Your task to perform on an android device: Clear the cart on bestbuy.com. Add usb-b to the cart on bestbuy.com, then select checkout. Image 0: 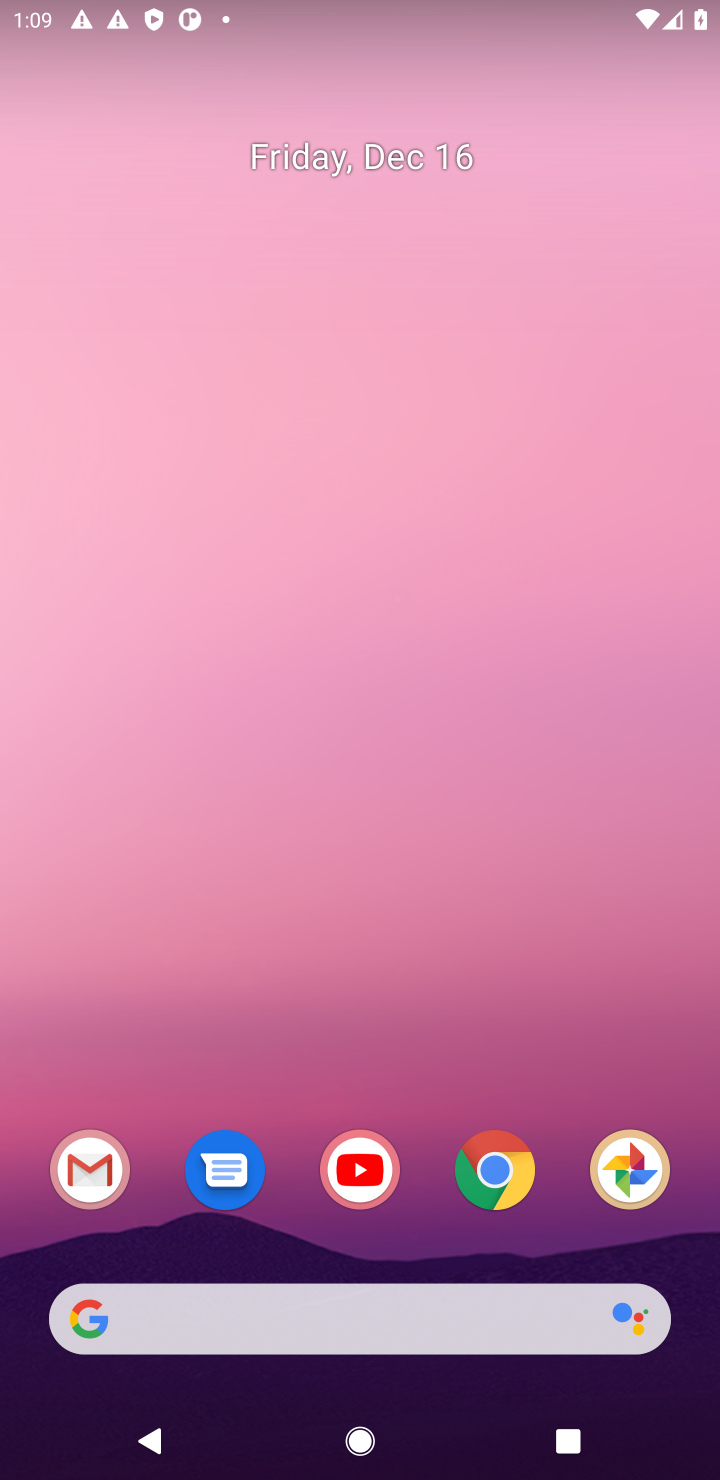
Step 0: click (507, 1175)
Your task to perform on an android device: Clear the cart on bestbuy.com. Add usb-b to the cart on bestbuy.com, then select checkout. Image 1: 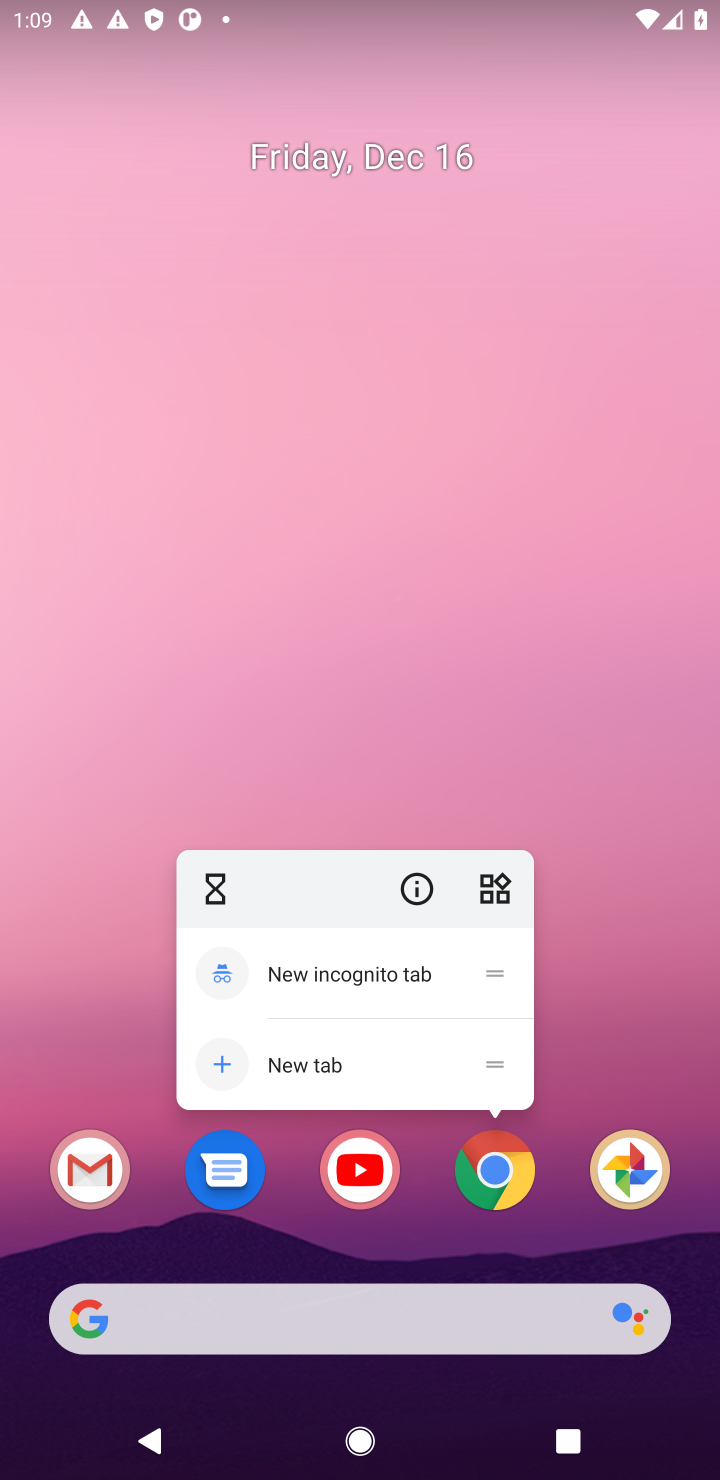
Step 1: click (507, 1175)
Your task to perform on an android device: Clear the cart on bestbuy.com. Add usb-b to the cart on bestbuy.com, then select checkout. Image 2: 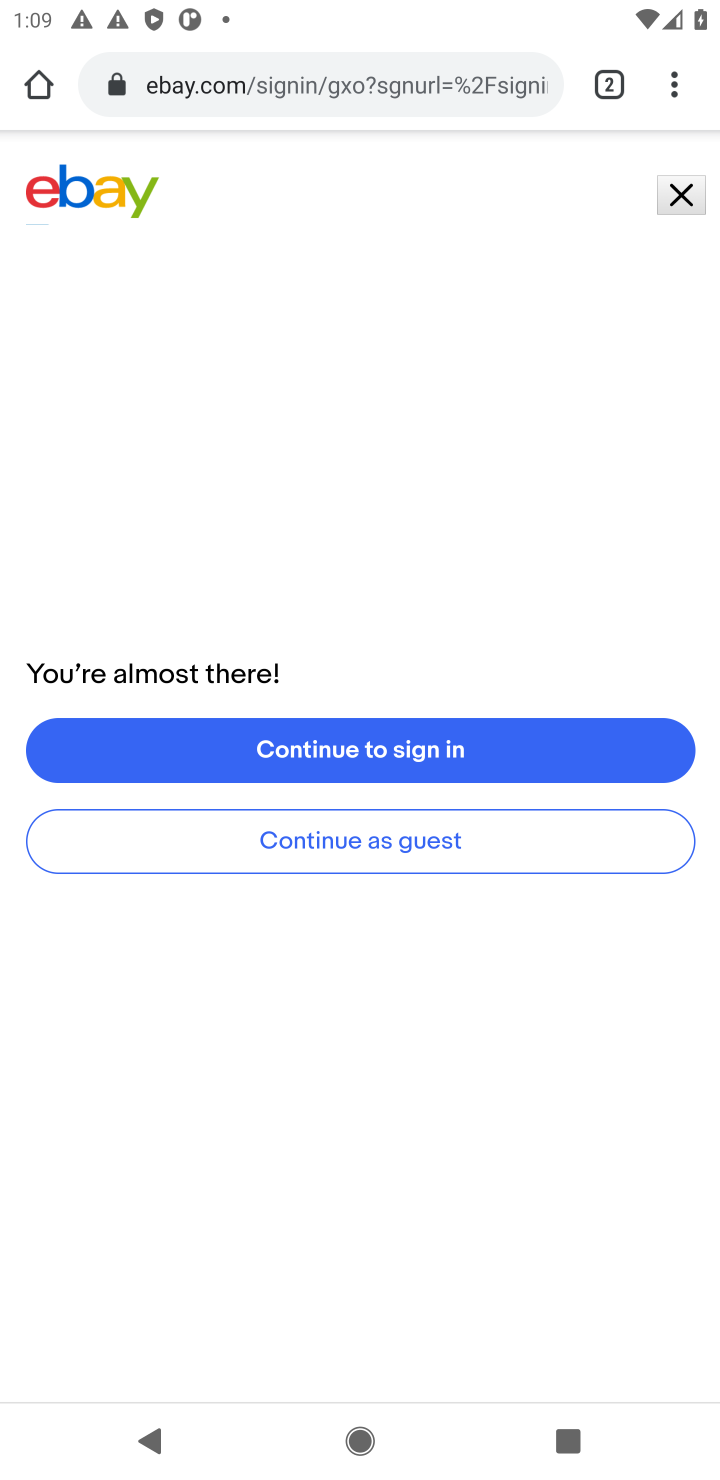
Step 2: click (290, 83)
Your task to perform on an android device: Clear the cart on bestbuy.com. Add usb-b to the cart on bestbuy.com, then select checkout. Image 3: 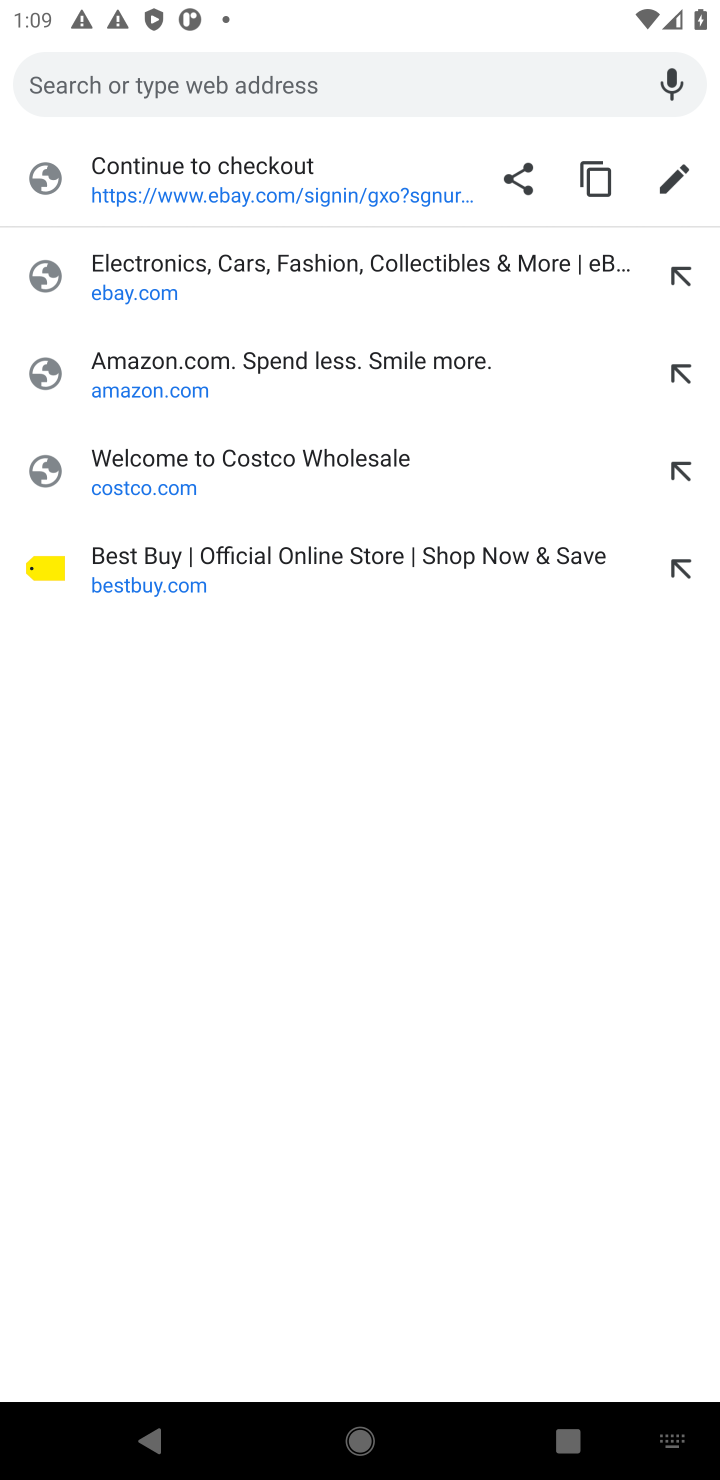
Step 3: click (139, 565)
Your task to perform on an android device: Clear the cart on bestbuy.com. Add usb-b to the cart on bestbuy.com, then select checkout. Image 4: 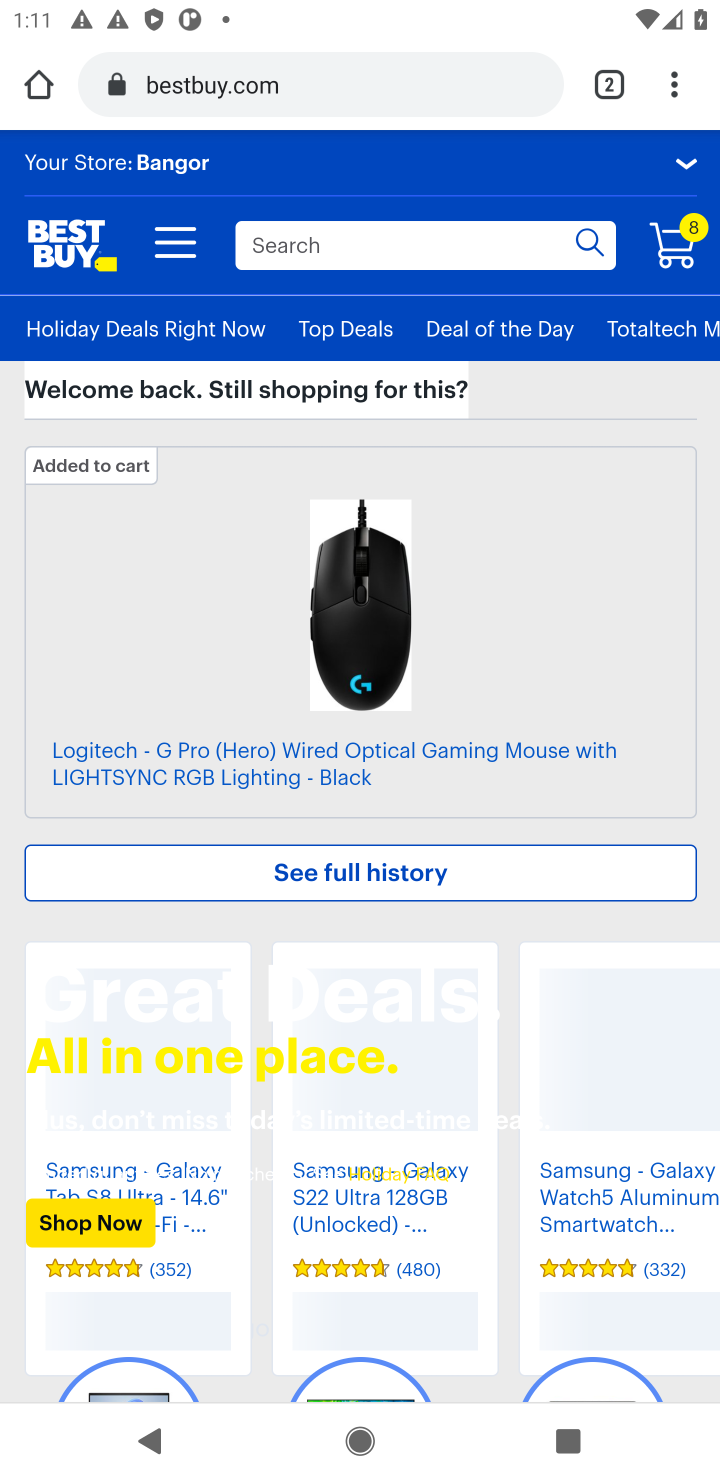
Step 4: click (671, 248)
Your task to perform on an android device: Clear the cart on bestbuy.com. Add usb-b to the cart on bestbuy.com, then select checkout. Image 5: 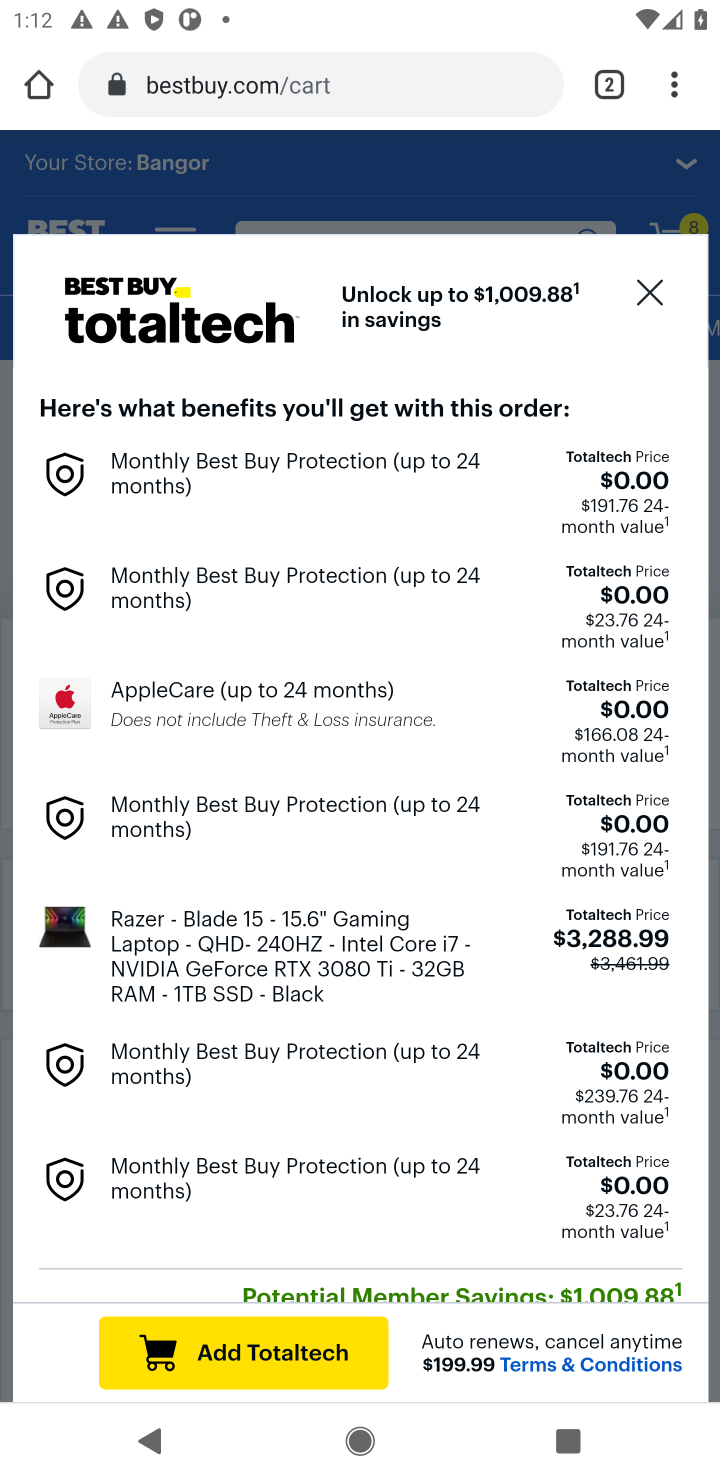
Step 5: click (645, 293)
Your task to perform on an android device: Clear the cart on bestbuy.com. Add usb-b to the cart on bestbuy.com, then select checkout. Image 6: 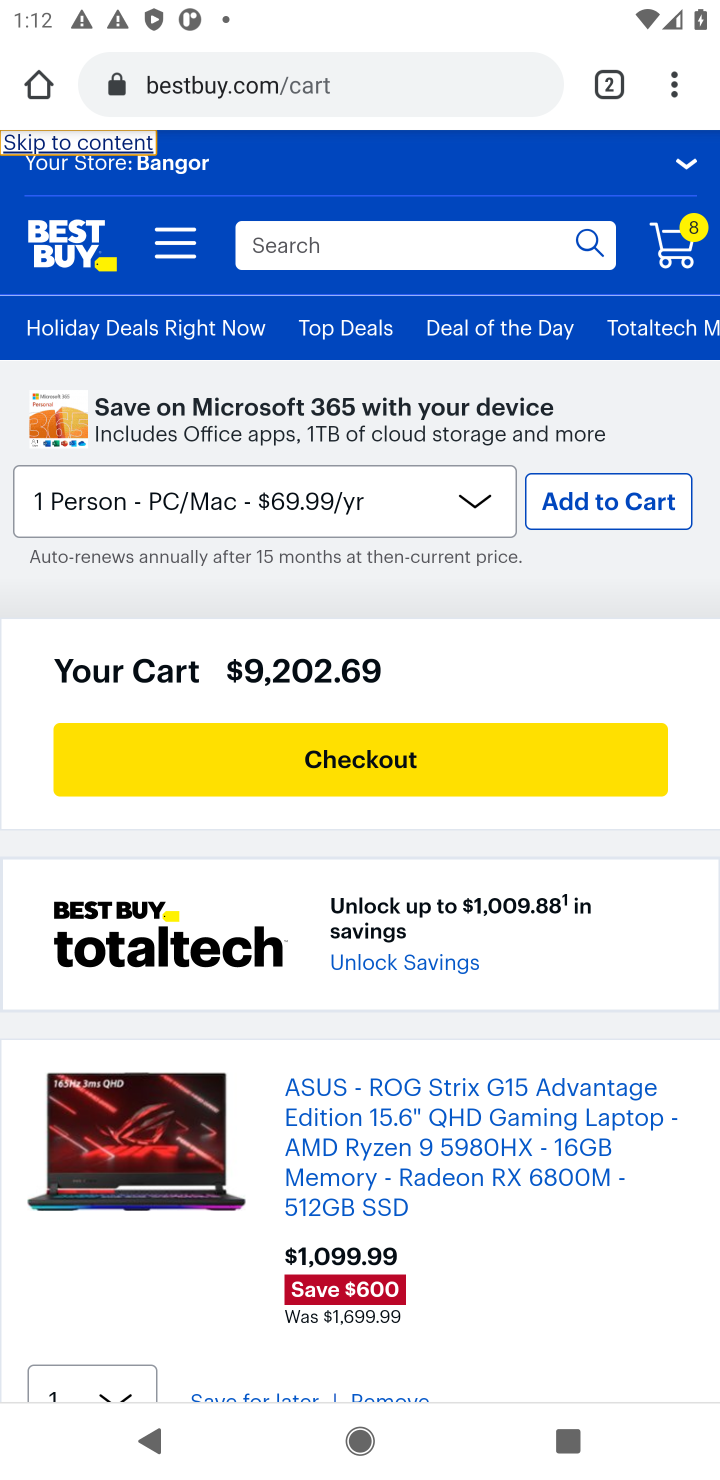
Step 6: drag from (310, 768) to (316, 298)
Your task to perform on an android device: Clear the cart on bestbuy.com. Add usb-b to the cart on bestbuy.com, then select checkout. Image 7: 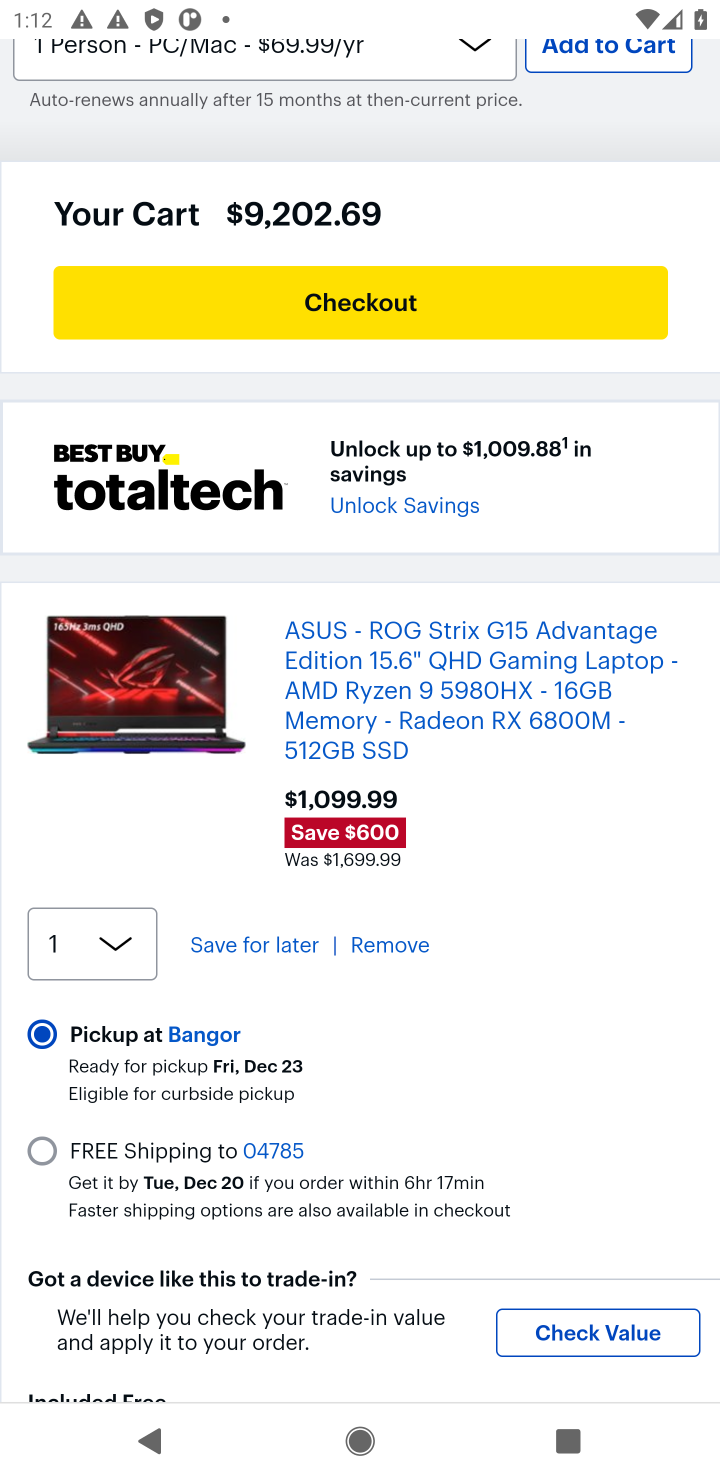
Step 7: click (380, 945)
Your task to perform on an android device: Clear the cart on bestbuy.com. Add usb-b to the cart on bestbuy.com, then select checkout. Image 8: 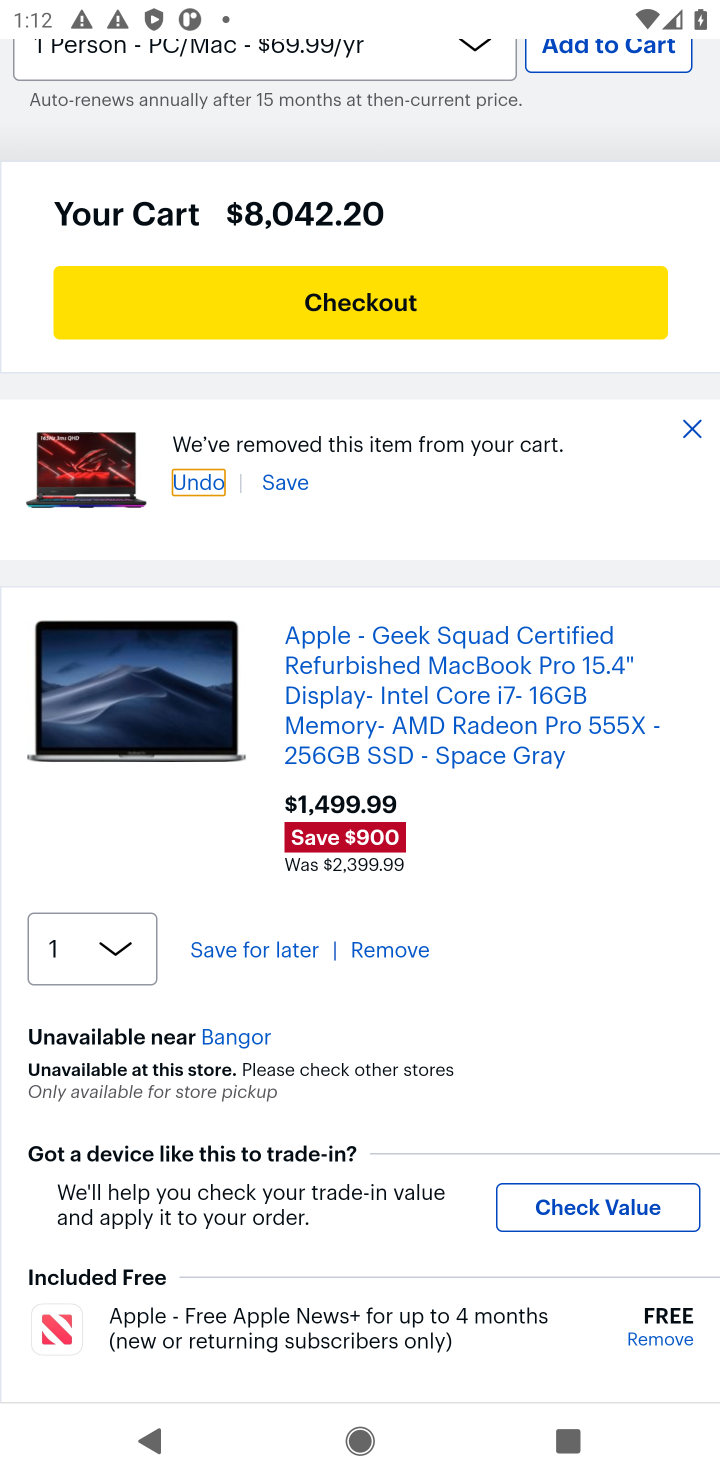
Step 8: click (392, 961)
Your task to perform on an android device: Clear the cart on bestbuy.com. Add usb-b to the cart on bestbuy.com, then select checkout. Image 9: 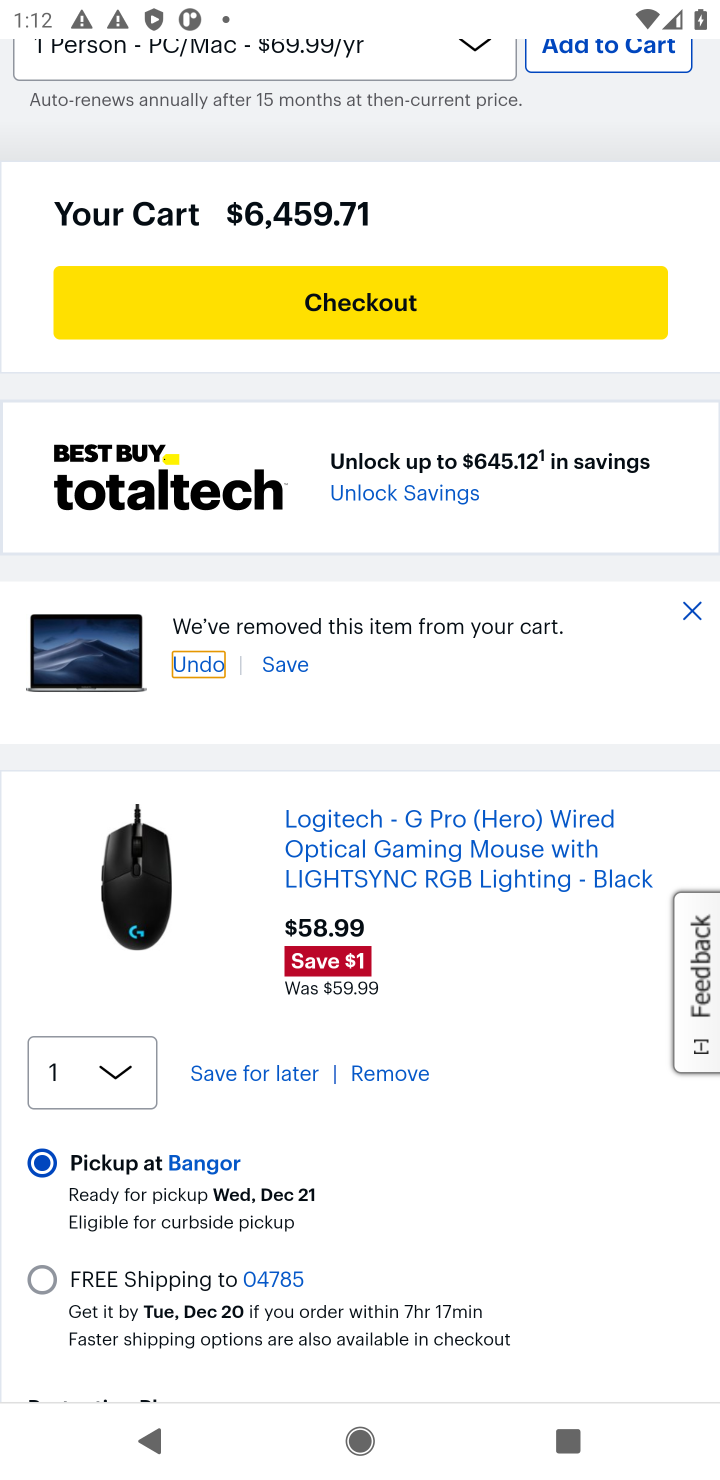
Step 9: click (373, 1063)
Your task to perform on an android device: Clear the cart on bestbuy.com. Add usb-b to the cart on bestbuy.com, then select checkout. Image 10: 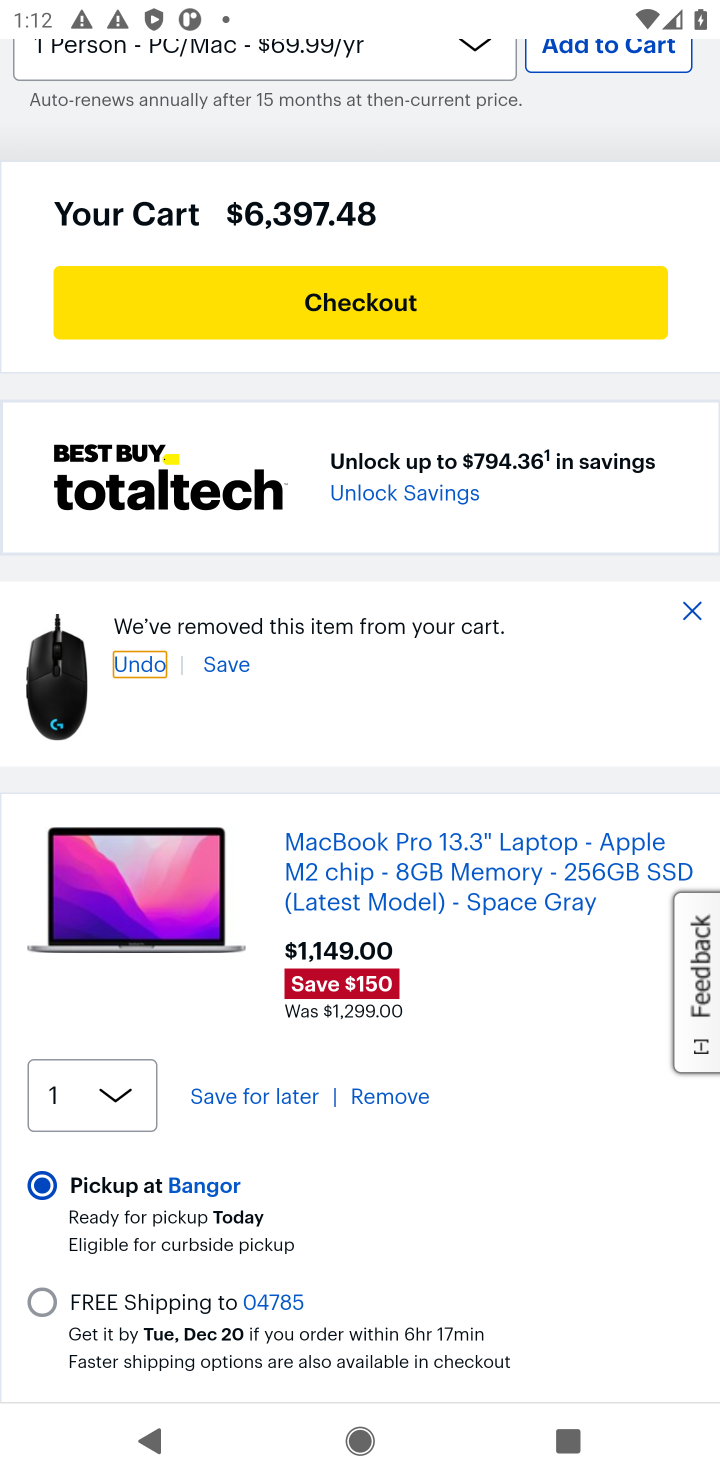
Step 10: click (388, 1082)
Your task to perform on an android device: Clear the cart on bestbuy.com. Add usb-b to the cart on bestbuy.com, then select checkout. Image 11: 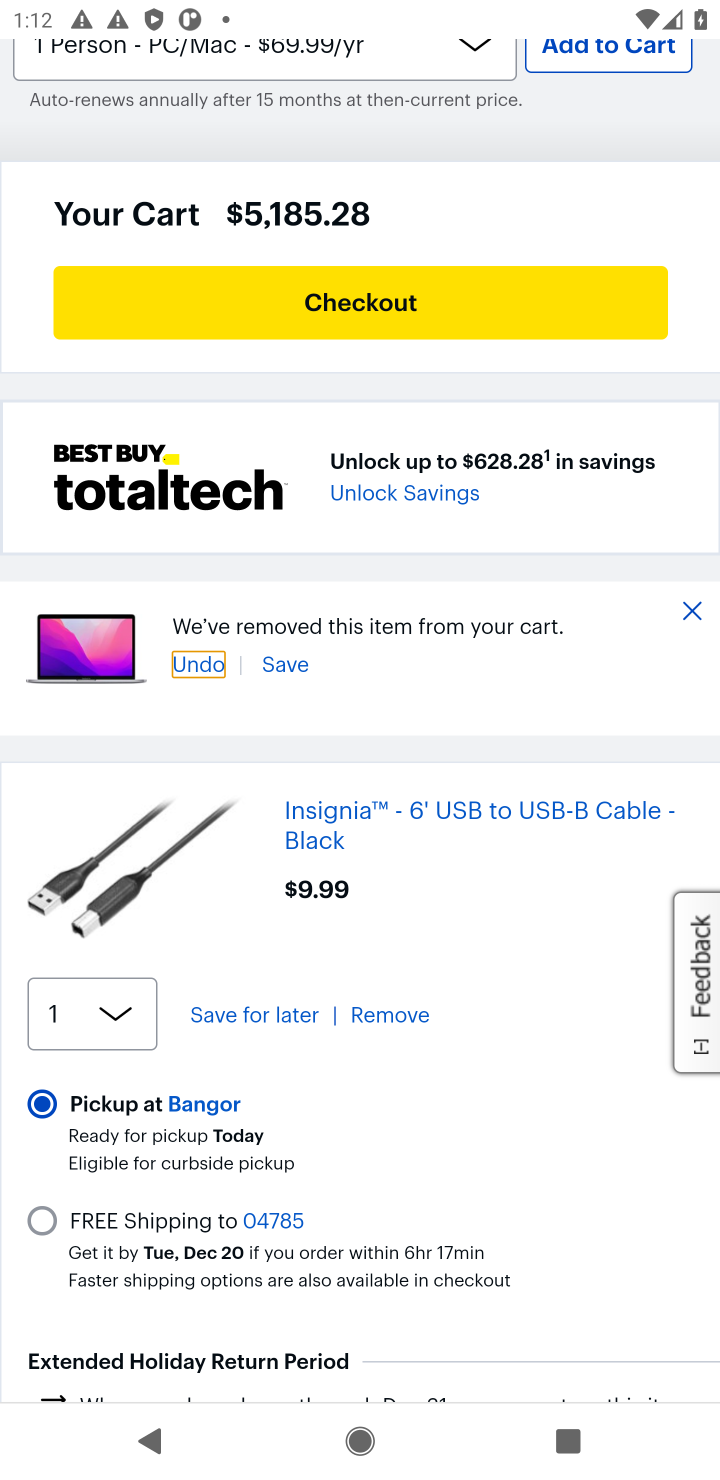
Step 11: click (389, 1026)
Your task to perform on an android device: Clear the cart on bestbuy.com. Add usb-b to the cart on bestbuy.com, then select checkout. Image 12: 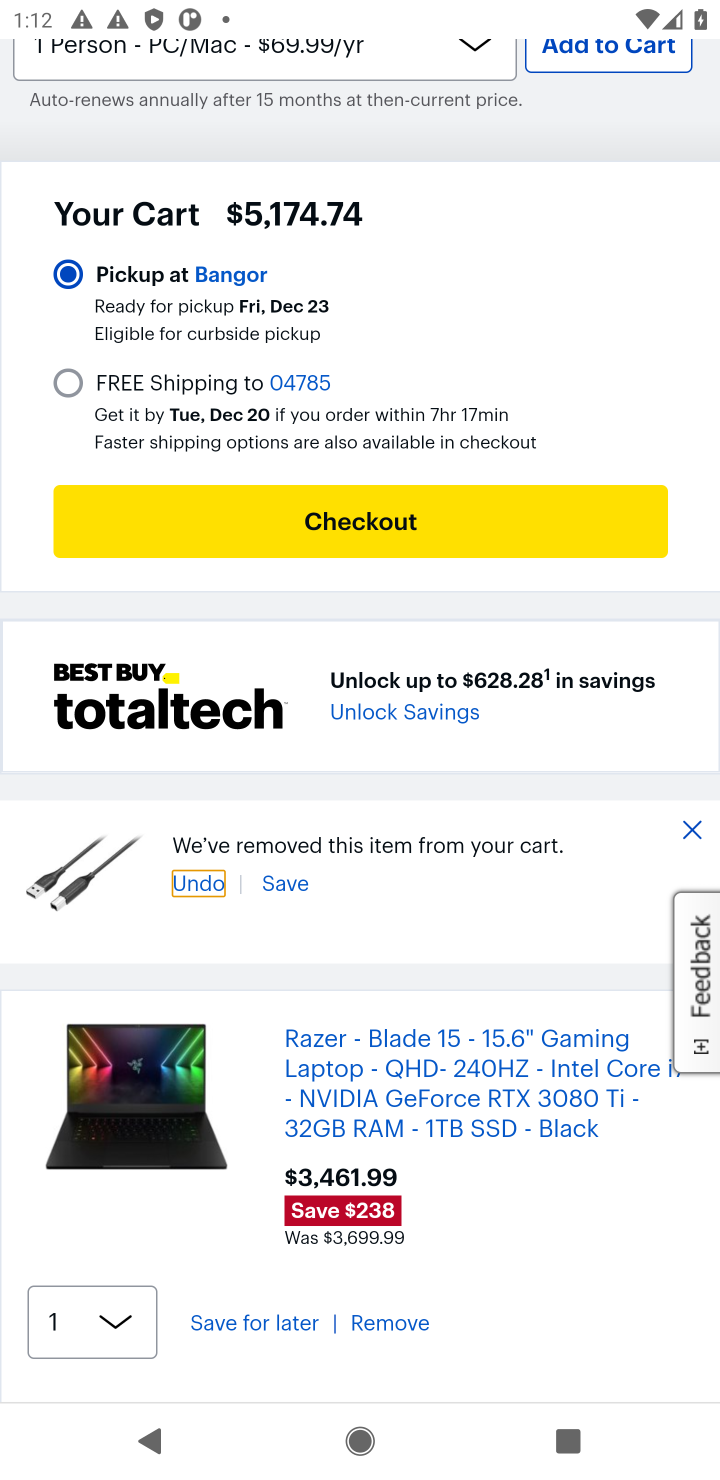
Step 12: click (379, 1333)
Your task to perform on an android device: Clear the cart on bestbuy.com. Add usb-b to the cart on bestbuy.com, then select checkout. Image 13: 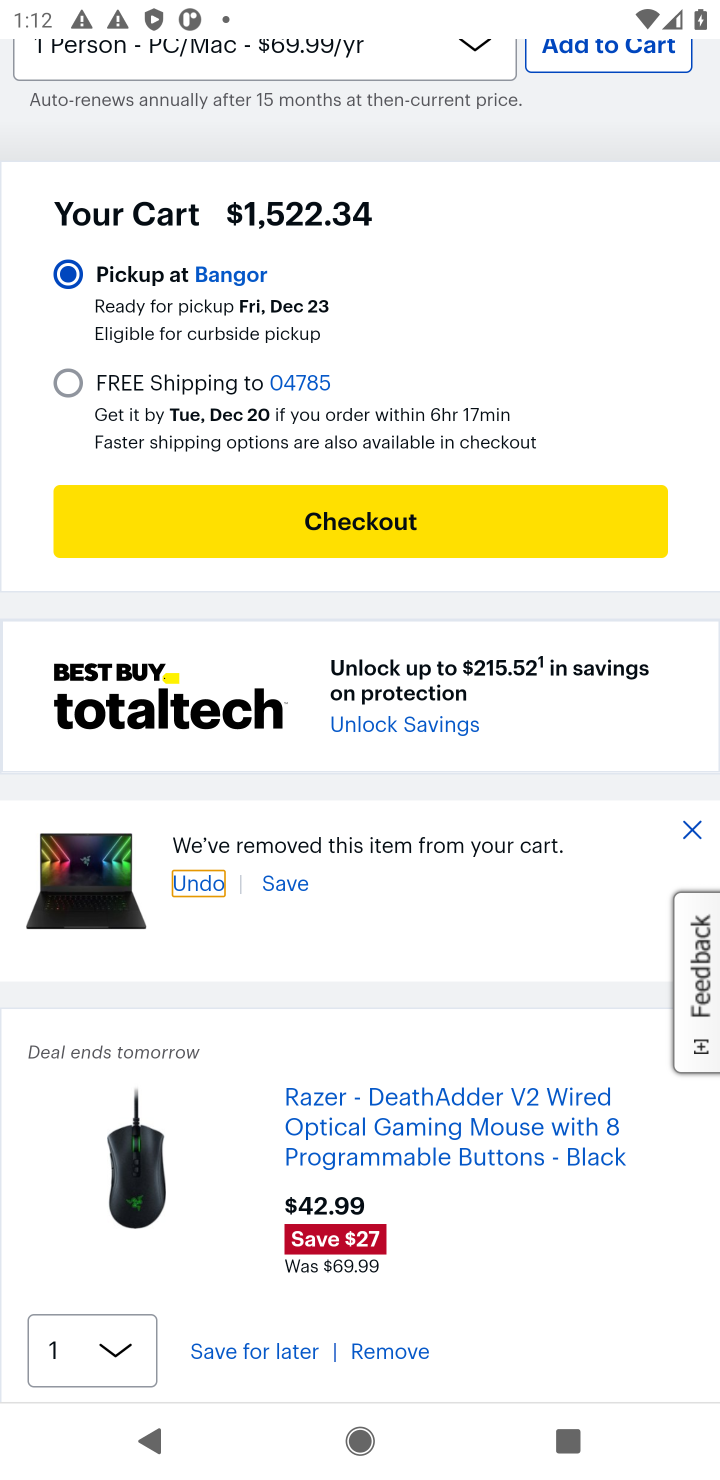
Step 13: drag from (373, 1084) to (379, 741)
Your task to perform on an android device: Clear the cart on bestbuy.com. Add usb-b to the cart on bestbuy.com, then select checkout. Image 14: 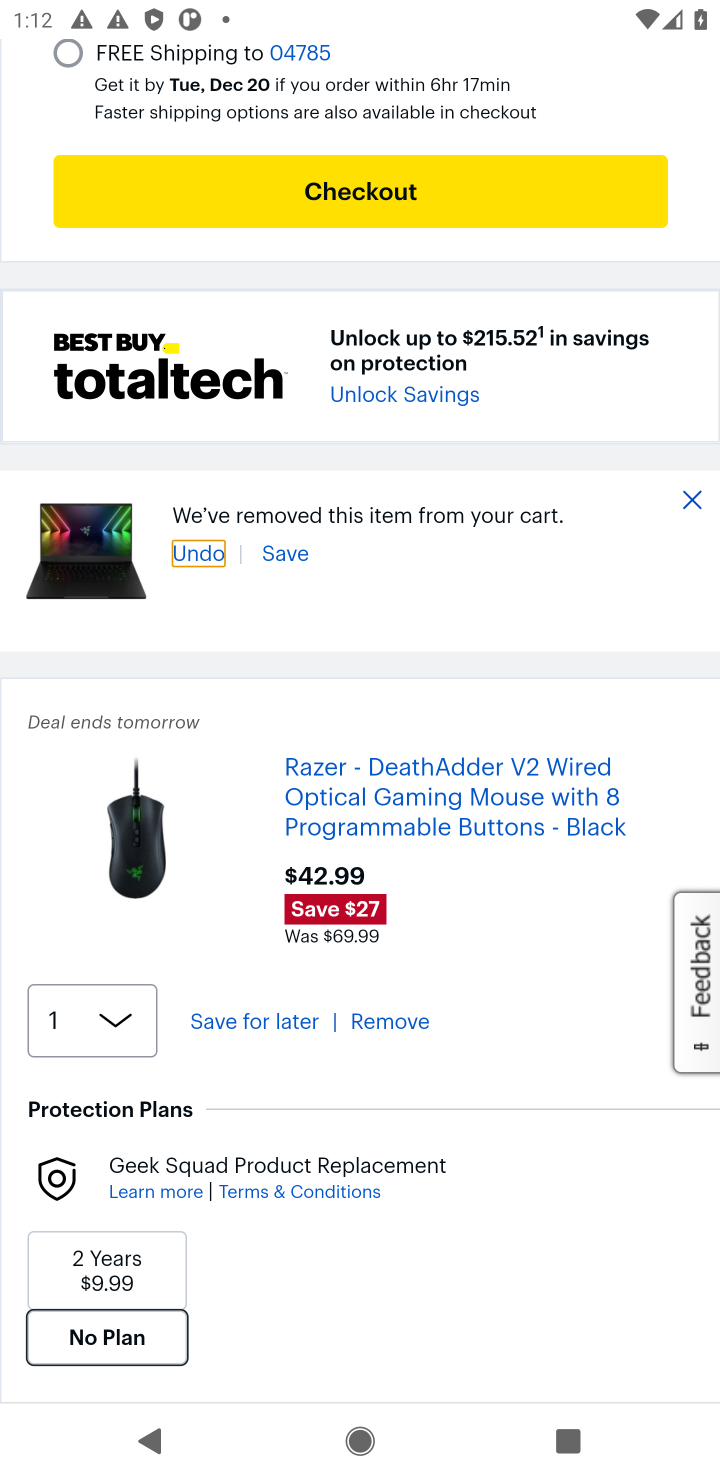
Step 14: click (367, 1023)
Your task to perform on an android device: Clear the cart on bestbuy.com. Add usb-b to the cart on bestbuy.com, then select checkout. Image 15: 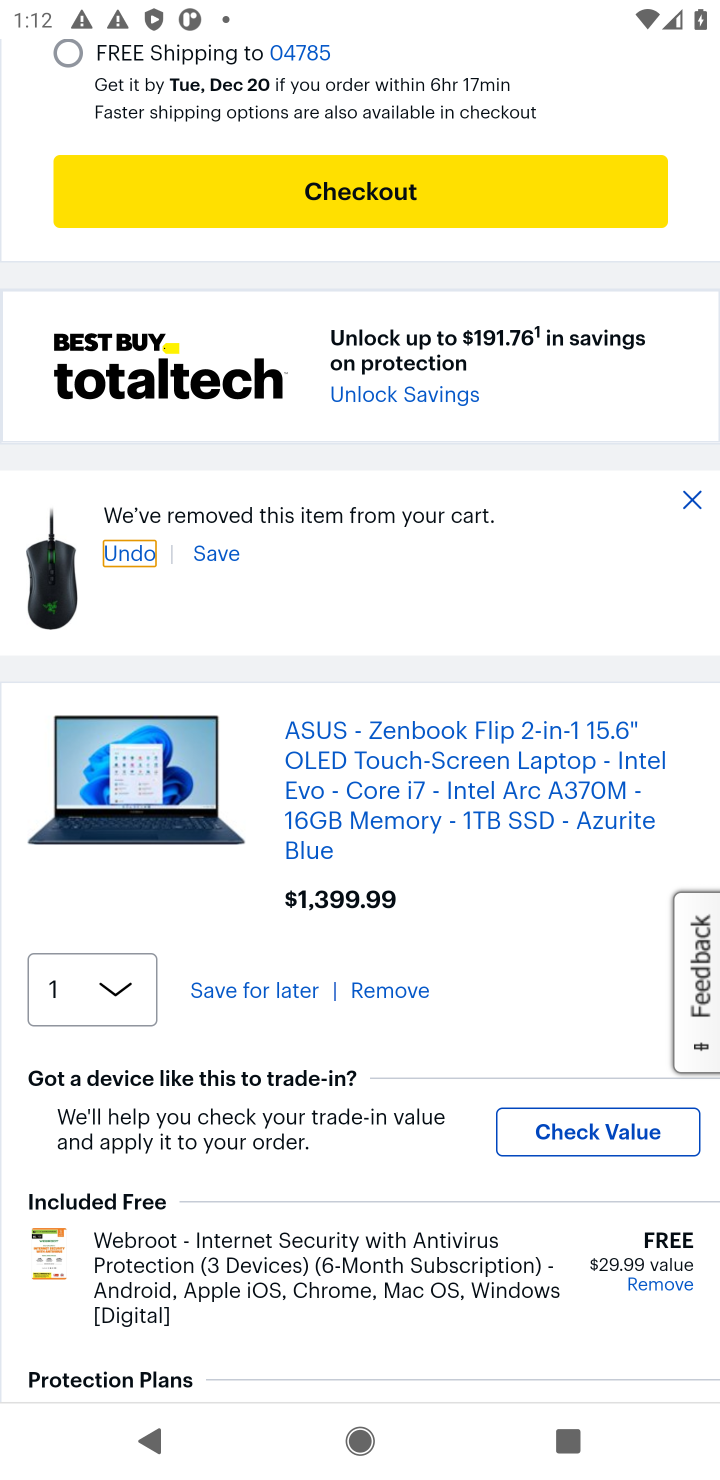
Step 15: click (382, 994)
Your task to perform on an android device: Clear the cart on bestbuy.com. Add usb-b to the cart on bestbuy.com, then select checkout. Image 16: 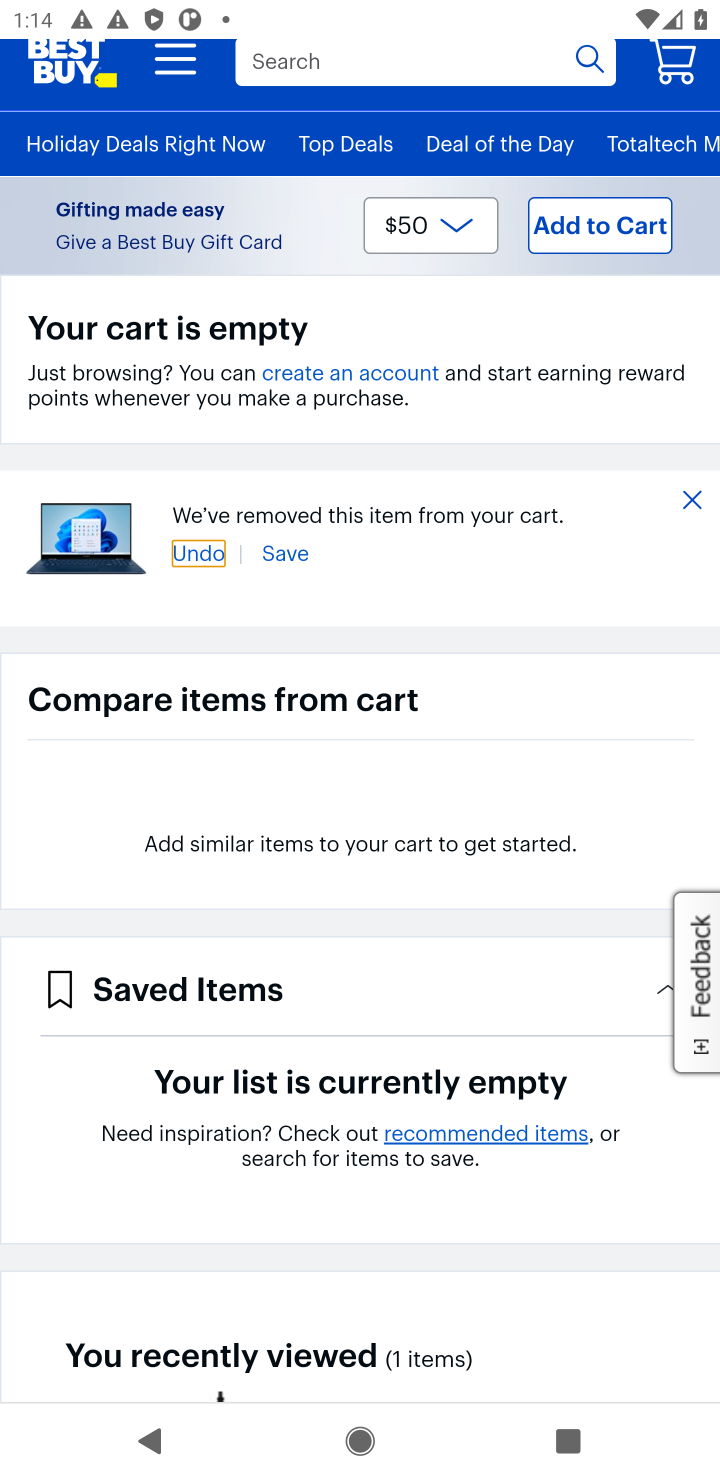
Step 16: drag from (290, 372) to (299, 712)
Your task to perform on an android device: Clear the cart on bestbuy.com. Add usb-b to the cart on bestbuy.com, then select checkout. Image 17: 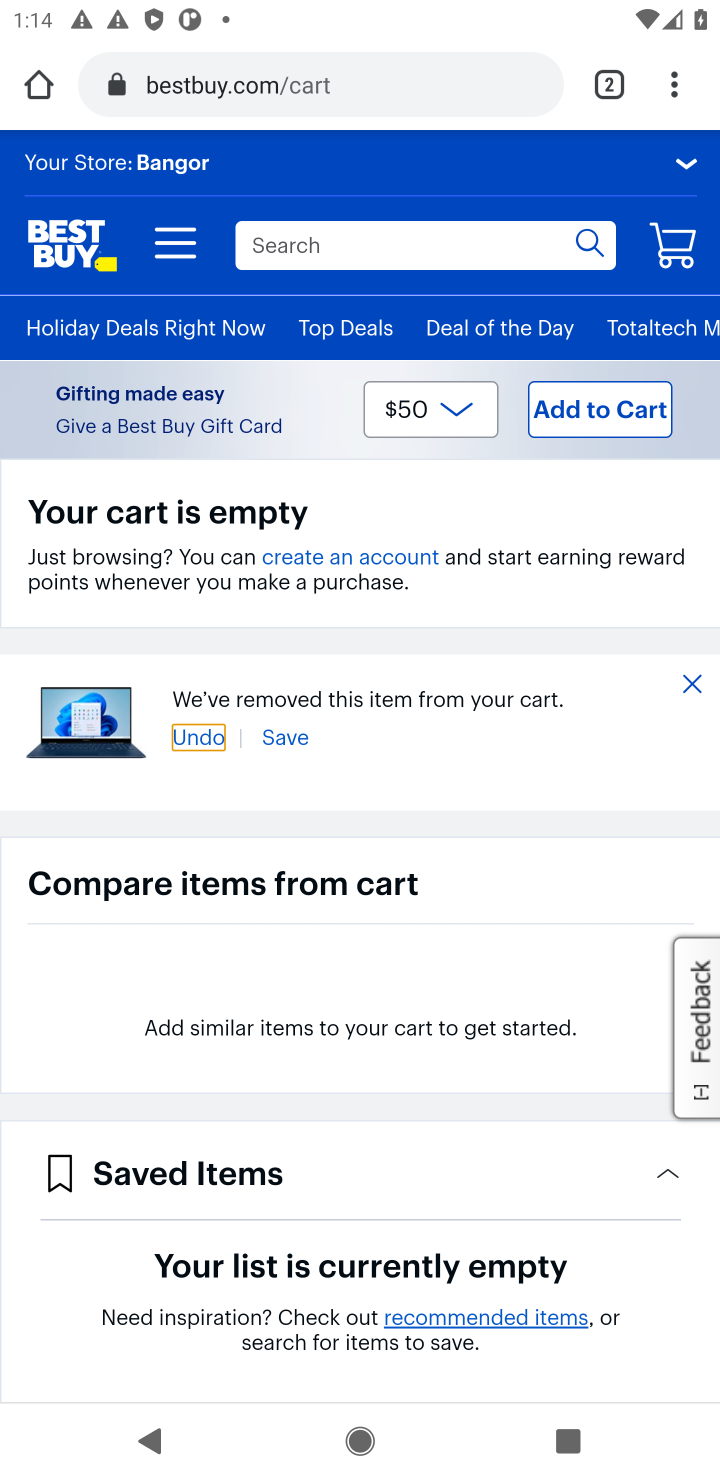
Step 17: click (346, 247)
Your task to perform on an android device: Clear the cart on bestbuy.com. Add usb-b to the cart on bestbuy.com, then select checkout. Image 18: 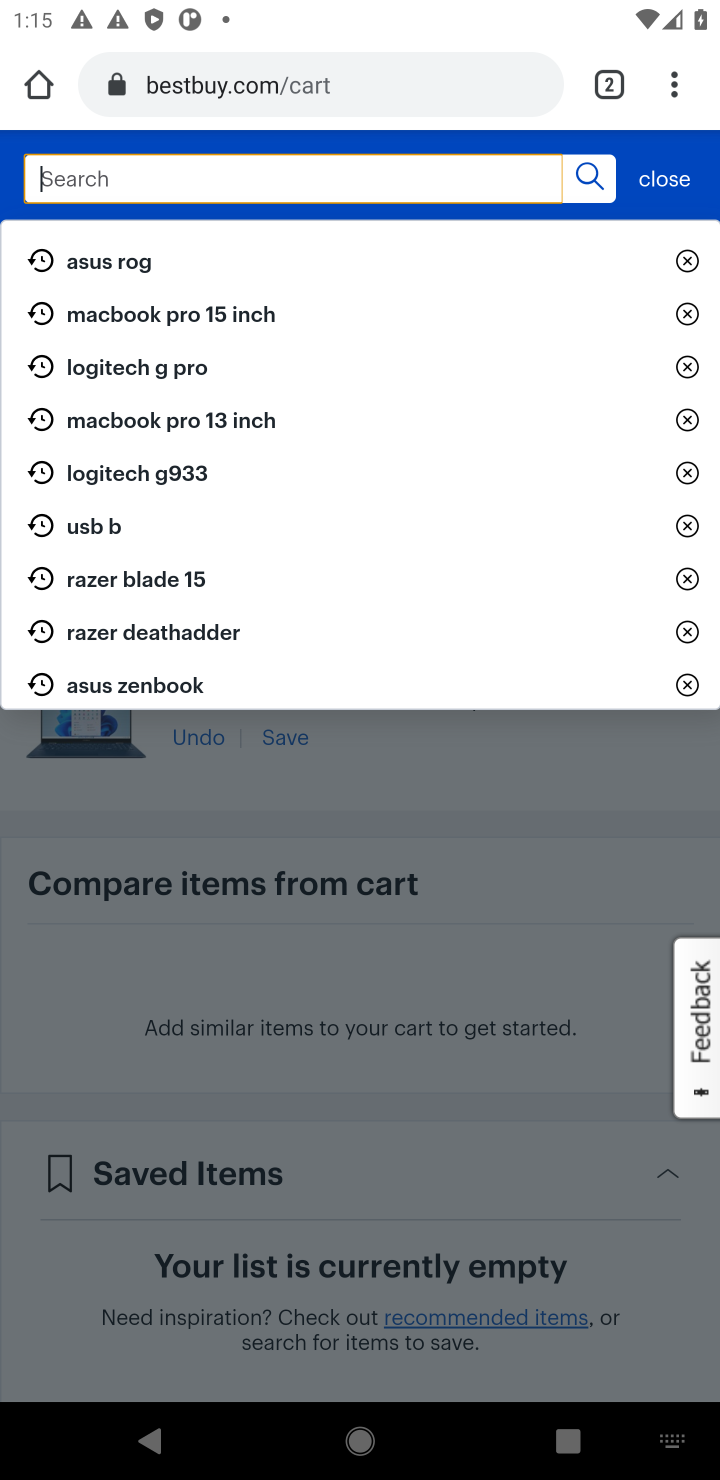
Step 18: type "usb-b"
Your task to perform on an android device: Clear the cart on bestbuy.com. Add usb-b to the cart on bestbuy.com, then select checkout. Image 19: 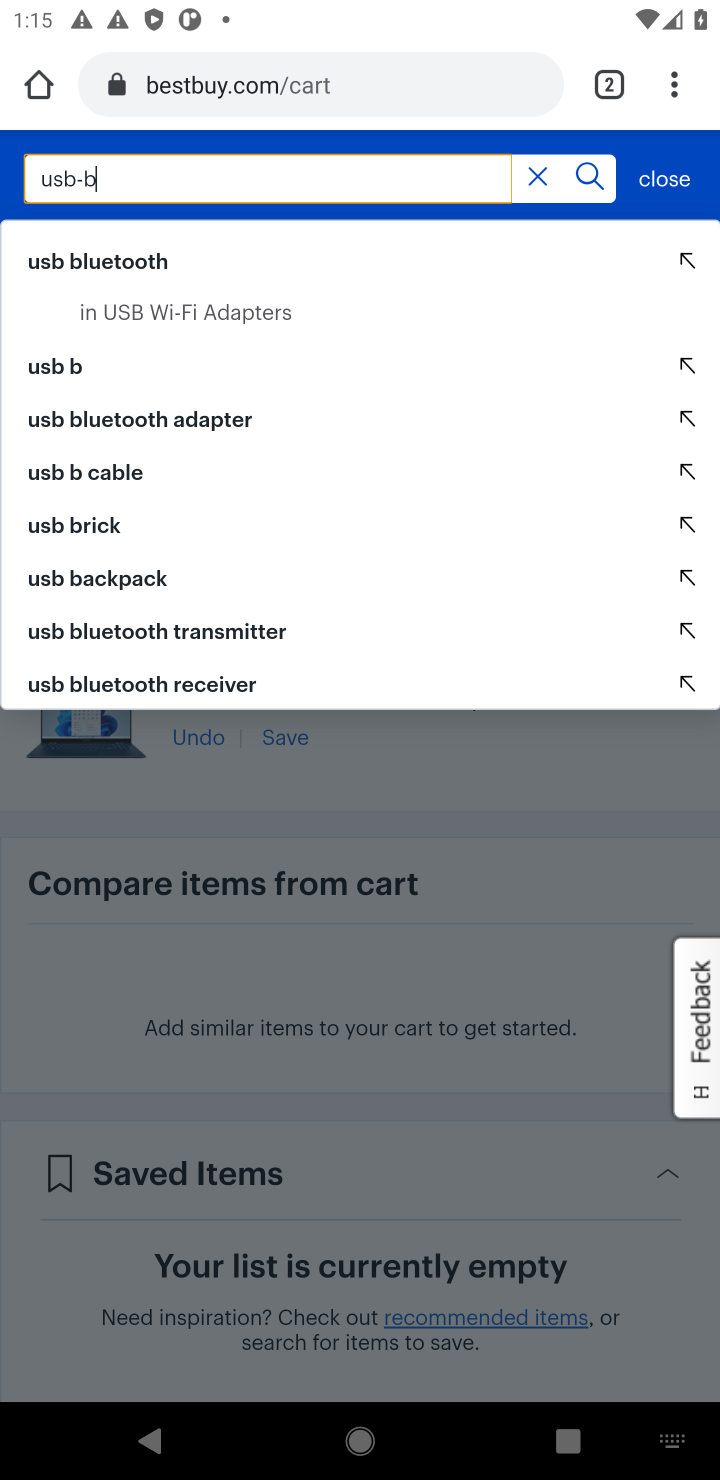
Step 19: click (59, 371)
Your task to perform on an android device: Clear the cart on bestbuy.com. Add usb-b to the cart on bestbuy.com, then select checkout. Image 20: 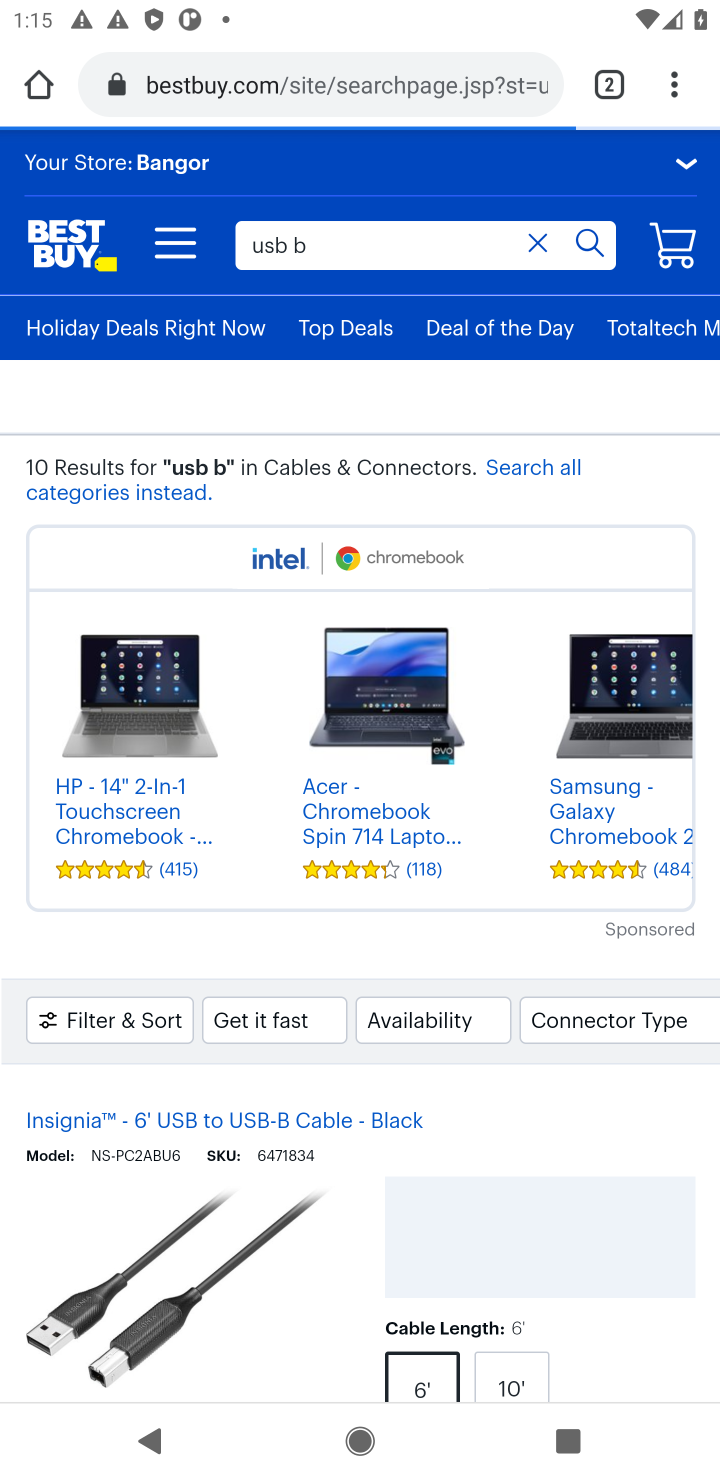
Step 20: drag from (258, 916) to (258, 641)
Your task to perform on an android device: Clear the cart on bestbuy.com. Add usb-b to the cart on bestbuy.com, then select checkout. Image 21: 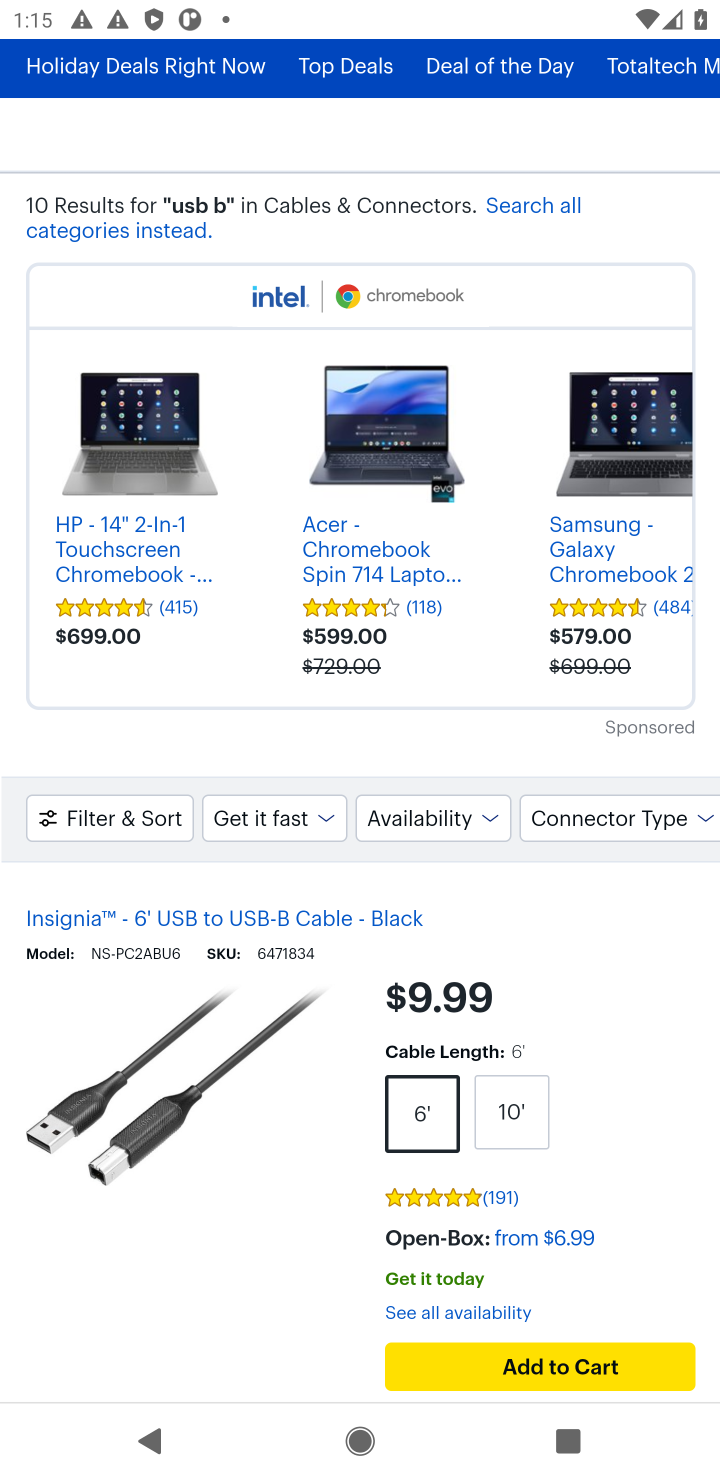
Step 21: click (549, 1363)
Your task to perform on an android device: Clear the cart on bestbuy.com. Add usb-b to the cart on bestbuy.com, then select checkout. Image 22: 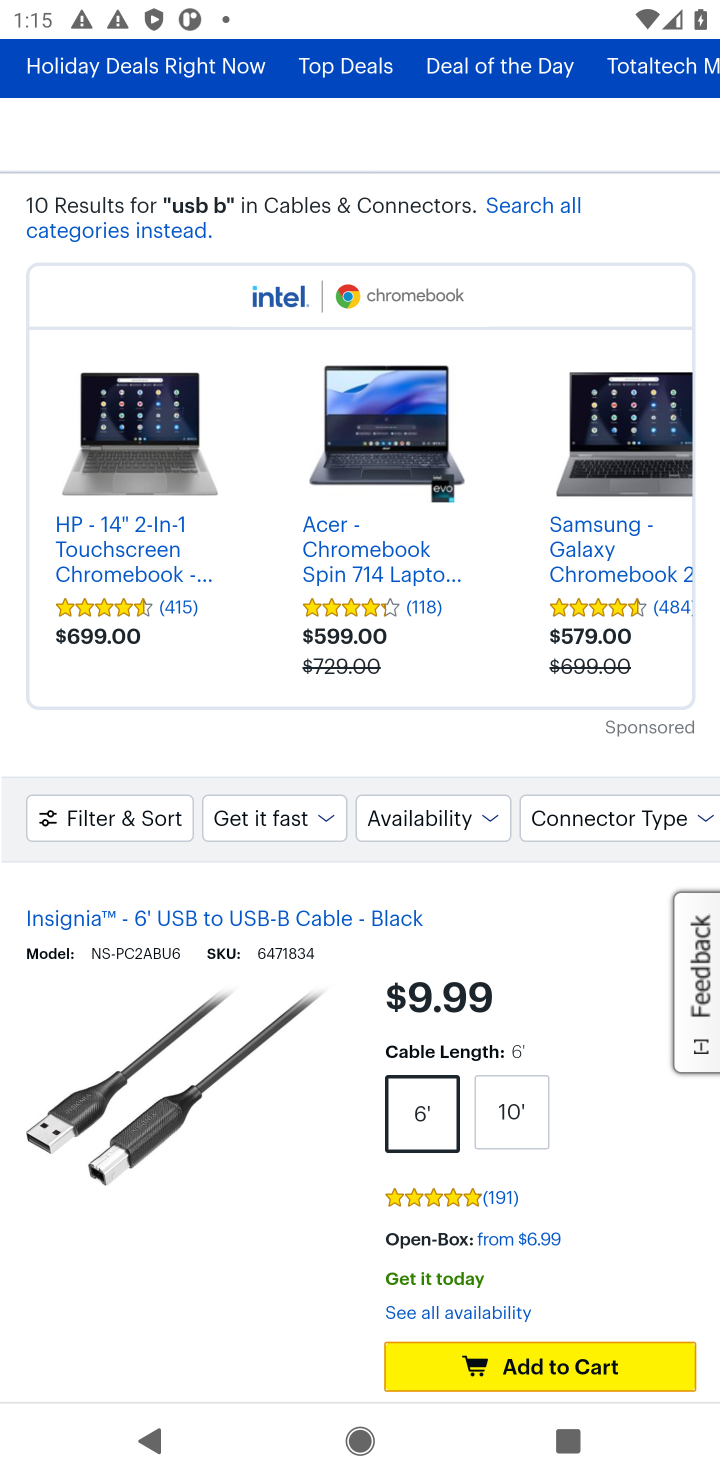
Step 22: drag from (211, 1054) to (209, 553)
Your task to perform on an android device: Clear the cart on bestbuy.com. Add usb-b to the cart on bestbuy.com, then select checkout. Image 23: 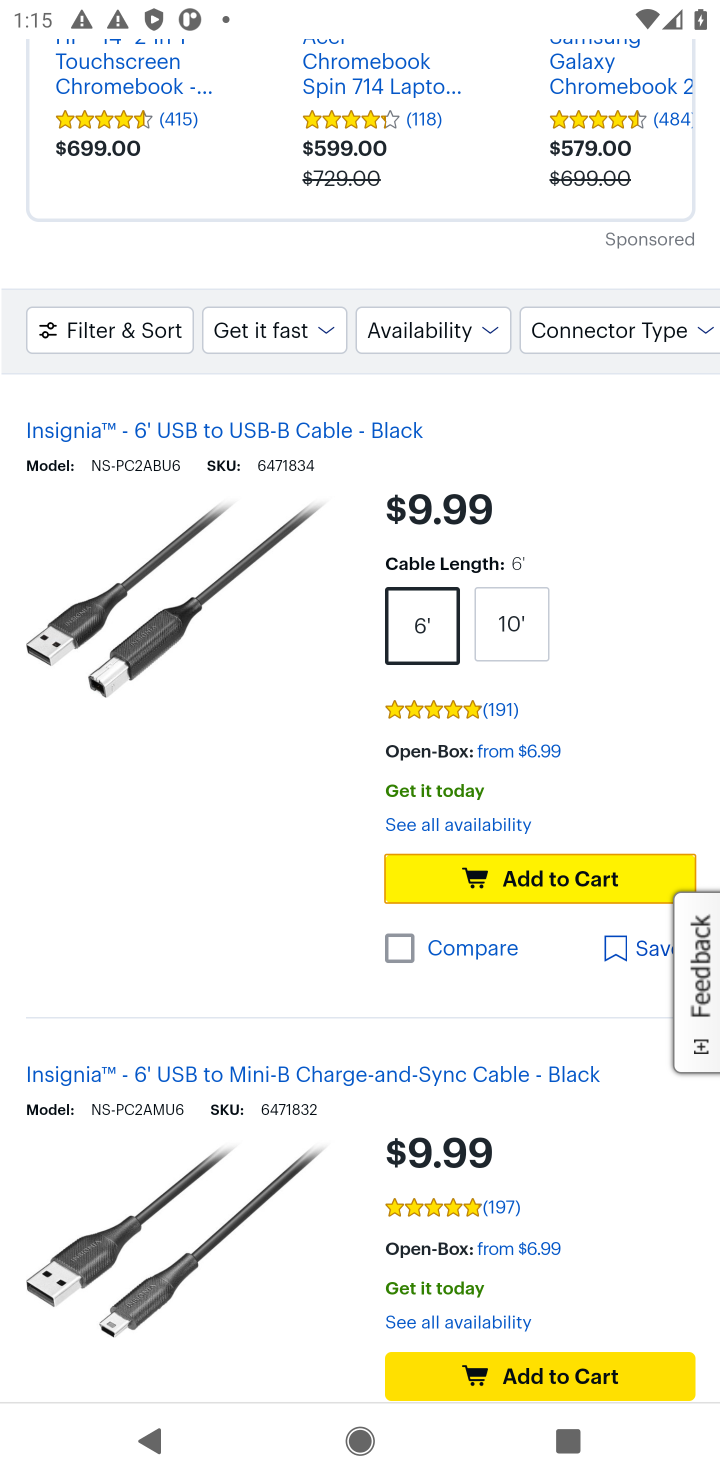
Step 23: click (536, 885)
Your task to perform on an android device: Clear the cart on bestbuy.com. Add usb-b to the cart on bestbuy.com, then select checkout. Image 24: 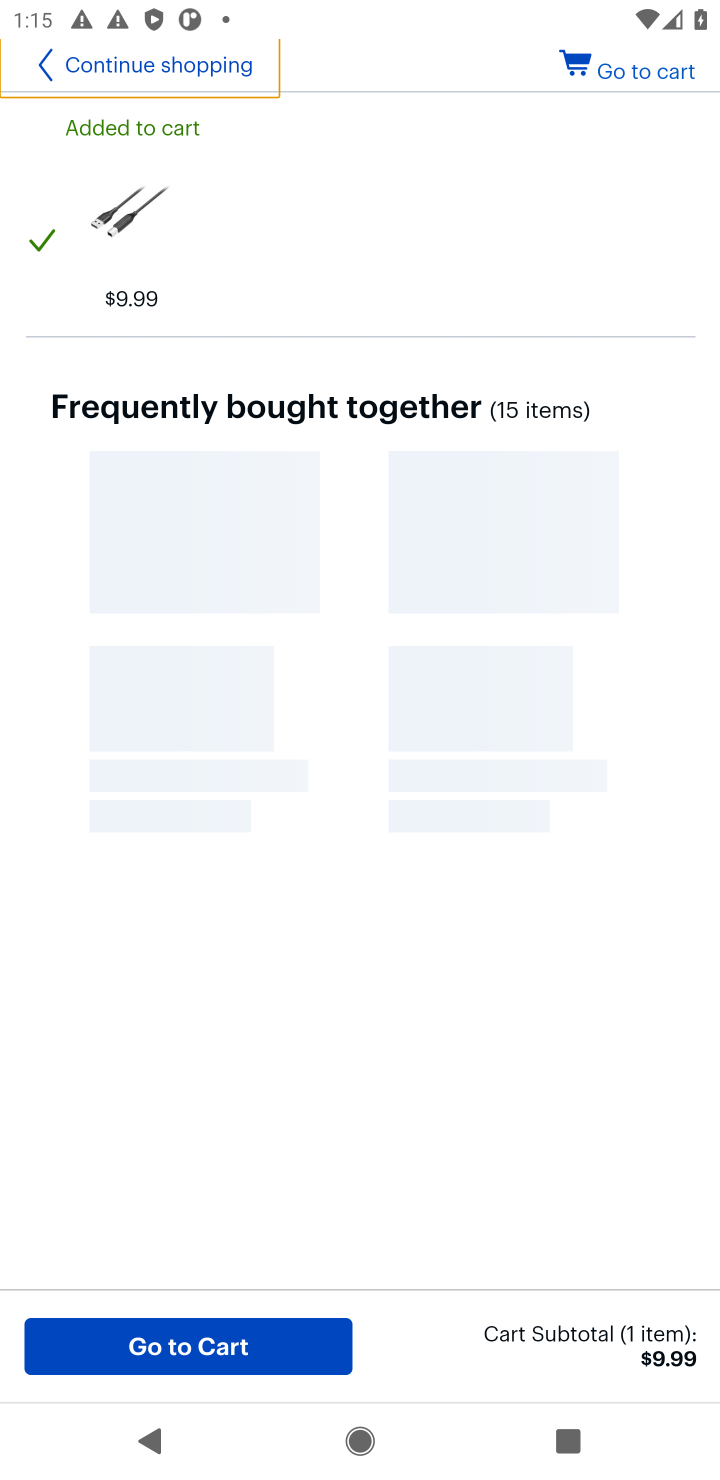
Step 24: click (657, 77)
Your task to perform on an android device: Clear the cart on bestbuy.com. Add usb-b to the cart on bestbuy.com, then select checkout. Image 25: 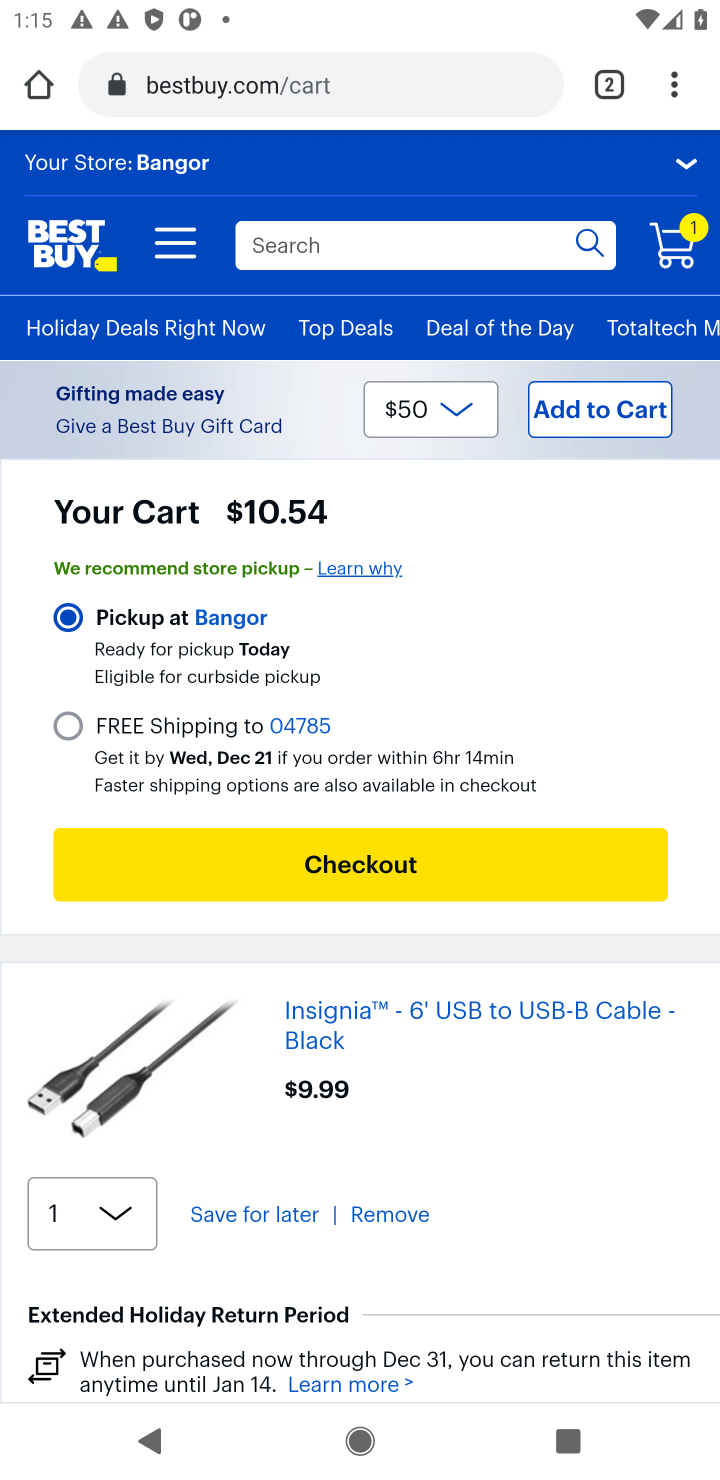
Step 25: click (340, 882)
Your task to perform on an android device: Clear the cart on bestbuy.com. Add usb-b to the cart on bestbuy.com, then select checkout. Image 26: 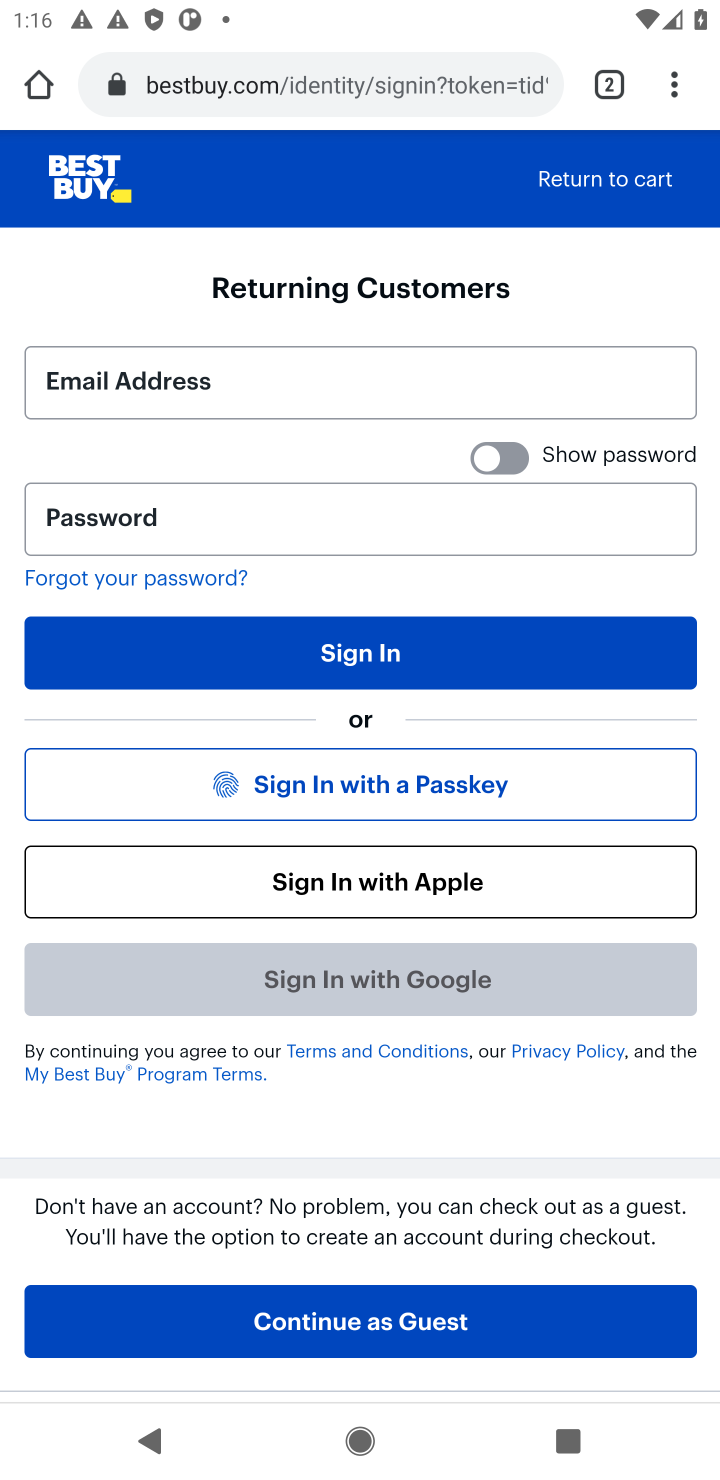
Step 26: task complete